Your task to perform on an android device: Go to Maps Image 0: 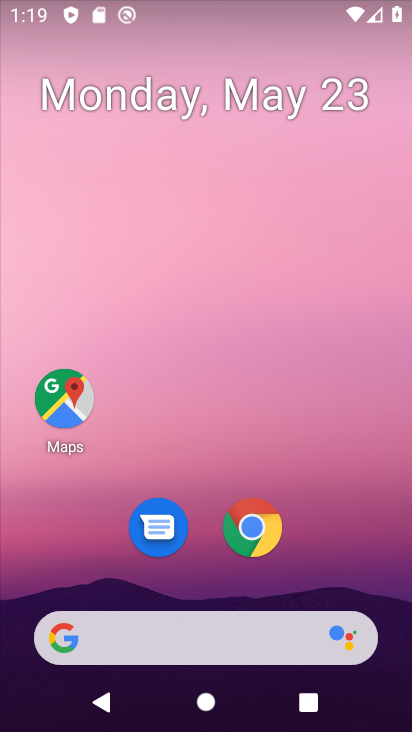
Step 0: click (60, 402)
Your task to perform on an android device: Go to Maps Image 1: 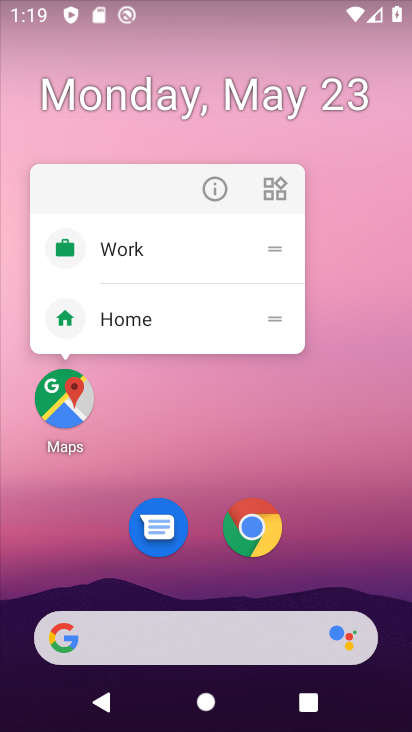
Step 1: click (43, 406)
Your task to perform on an android device: Go to Maps Image 2: 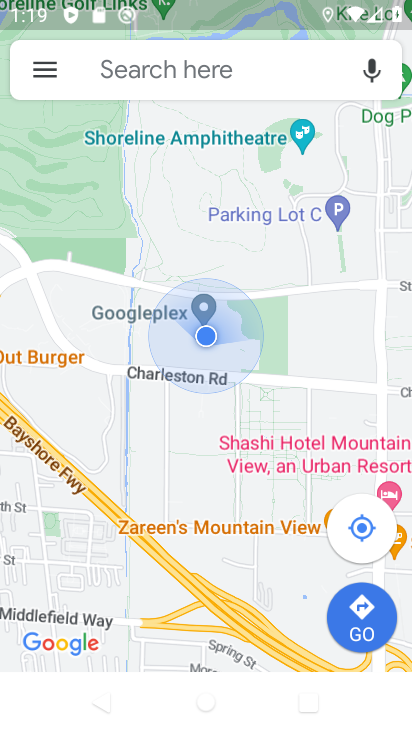
Step 2: task complete